Your task to perform on an android device: Open Reddit.com Image 0: 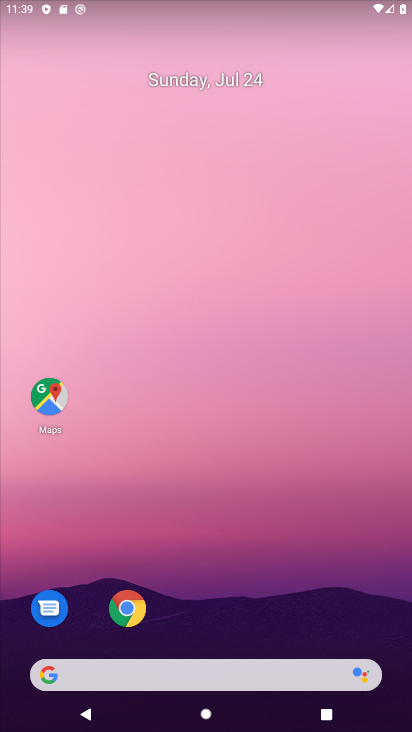
Step 0: drag from (261, 609) to (335, 129)
Your task to perform on an android device: Open Reddit.com Image 1: 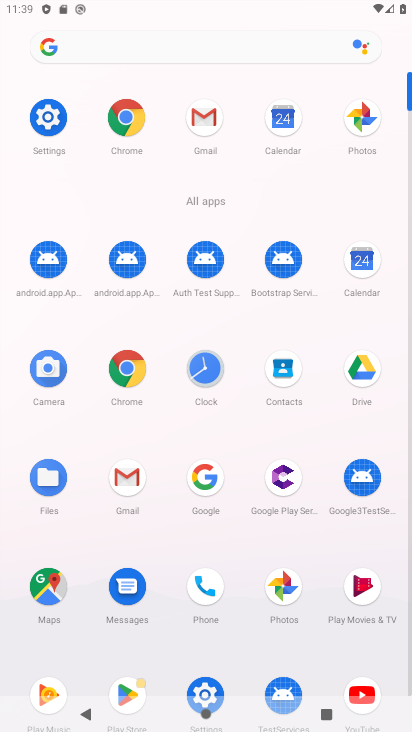
Step 1: click (128, 129)
Your task to perform on an android device: Open Reddit.com Image 2: 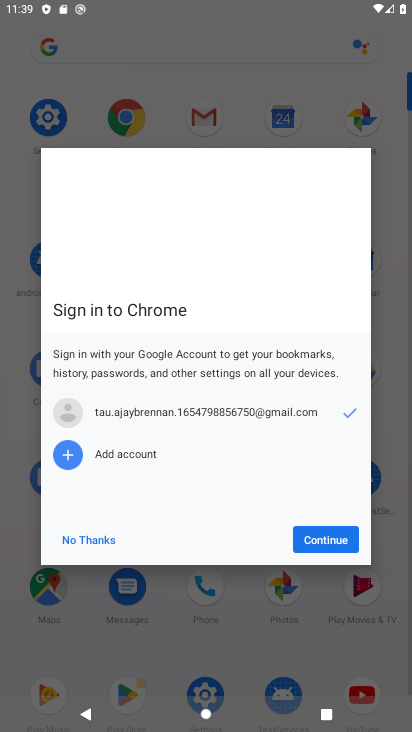
Step 2: click (327, 545)
Your task to perform on an android device: Open Reddit.com Image 3: 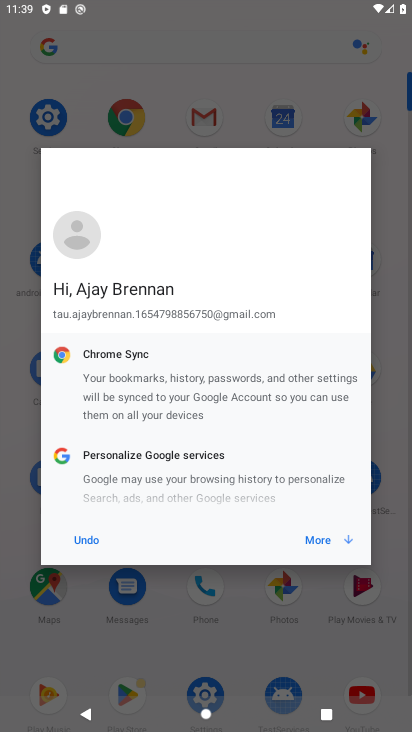
Step 3: click (327, 545)
Your task to perform on an android device: Open Reddit.com Image 4: 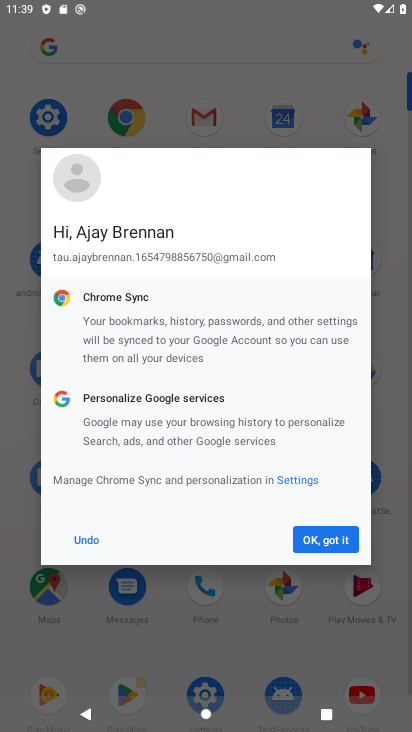
Step 4: click (327, 545)
Your task to perform on an android device: Open Reddit.com Image 5: 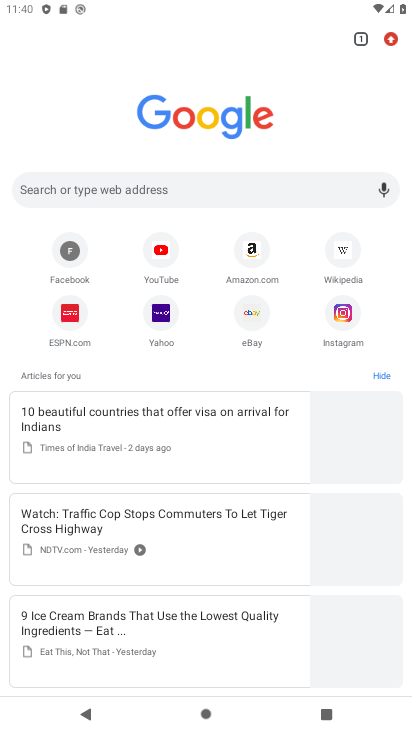
Step 5: click (212, 195)
Your task to perform on an android device: Open Reddit.com Image 6: 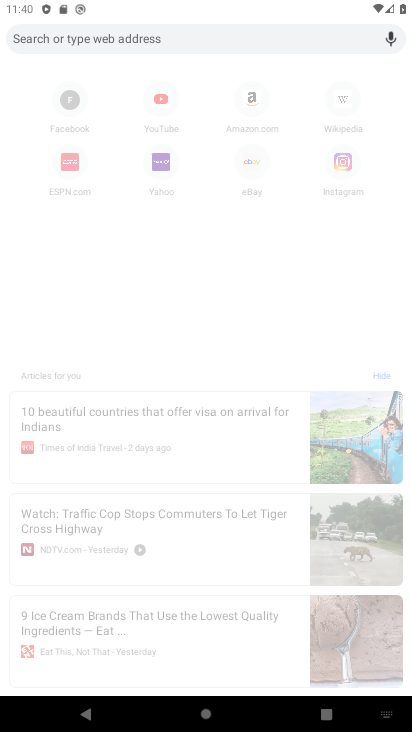
Step 6: type "reddit"
Your task to perform on an android device: Open Reddit.com Image 7: 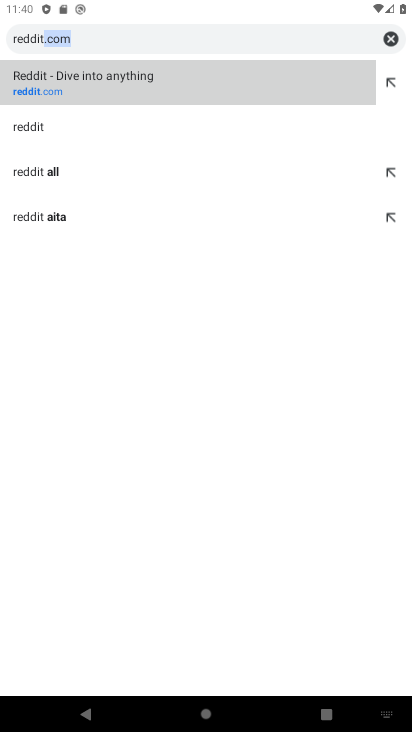
Step 7: click (146, 77)
Your task to perform on an android device: Open Reddit.com Image 8: 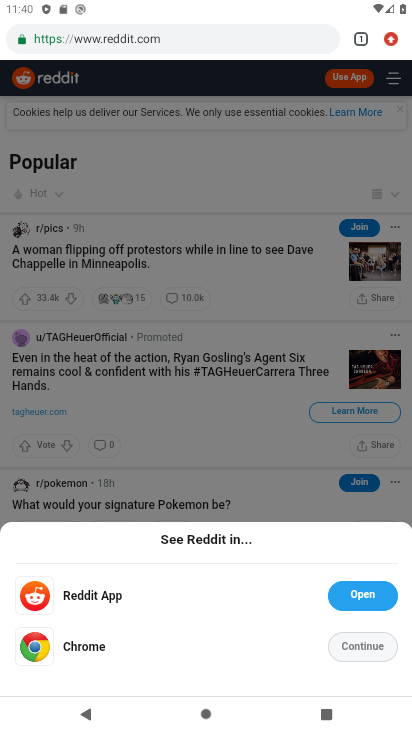
Step 8: task complete